Your task to perform on an android device: Open privacy settings Image 0: 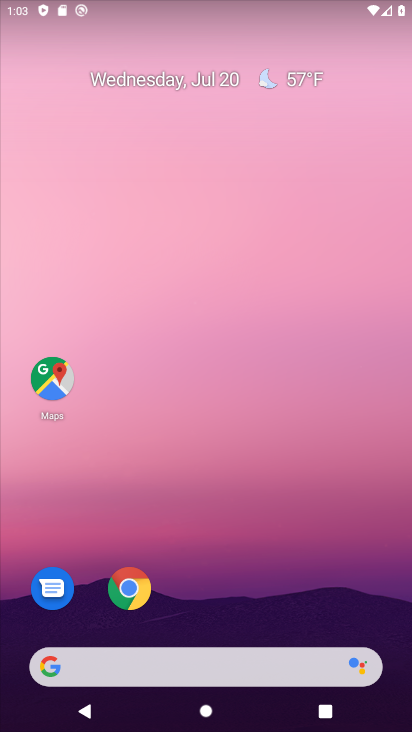
Step 0: drag from (83, 517) to (256, 161)
Your task to perform on an android device: Open privacy settings Image 1: 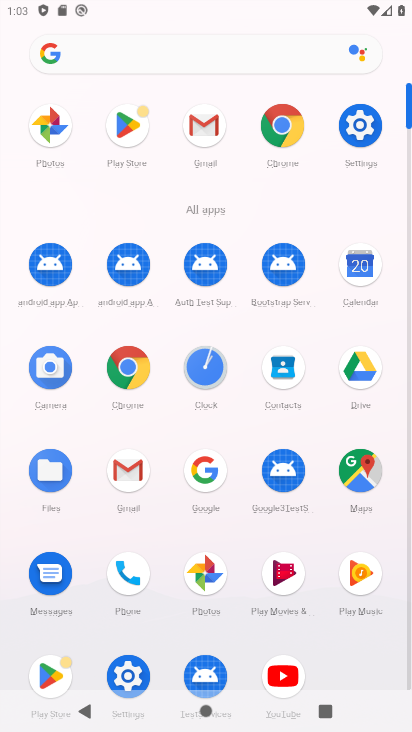
Step 1: click (365, 129)
Your task to perform on an android device: Open privacy settings Image 2: 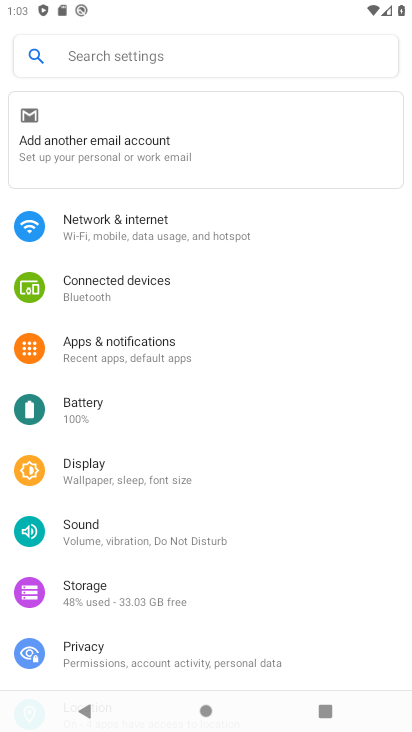
Step 2: click (126, 649)
Your task to perform on an android device: Open privacy settings Image 3: 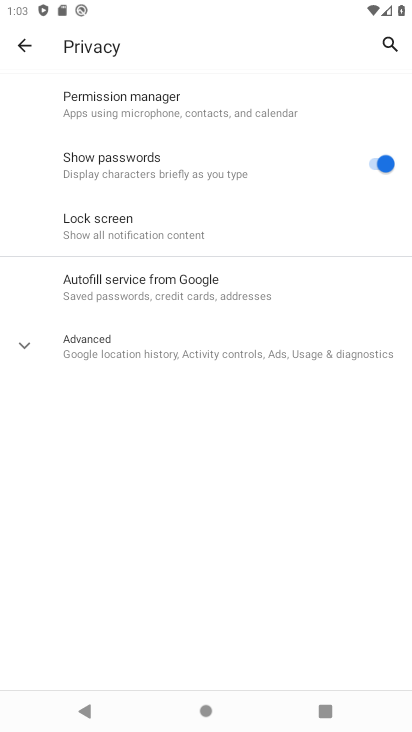
Step 3: task complete